Your task to perform on an android device: move an email to a new category in the gmail app Image 0: 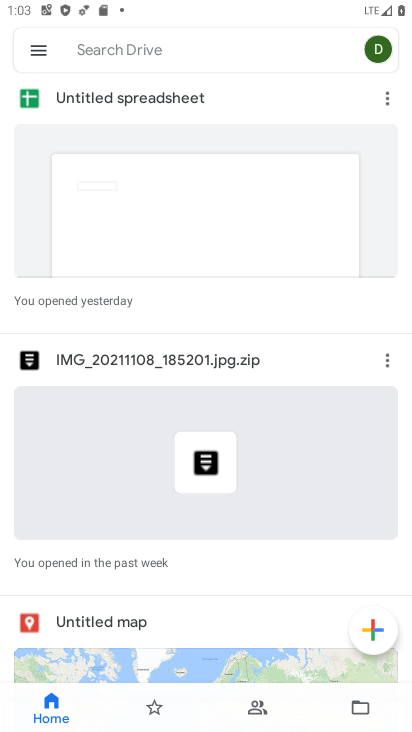
Step 0: press home button
Your task to perform on an android device: move an email to a new category in the gmail app Image 1: 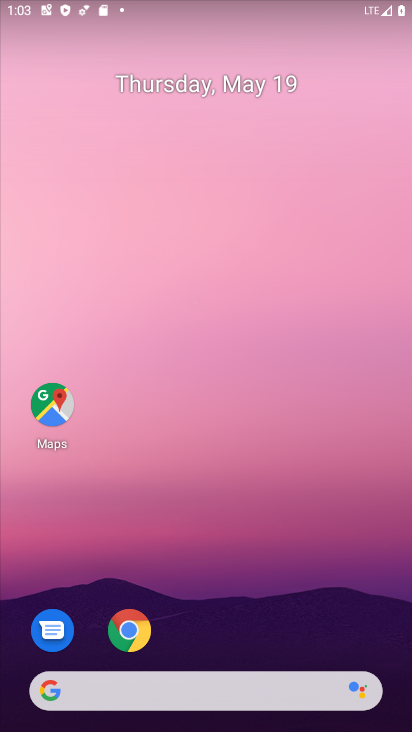
Step 1: drag from (197, 669) to (165, 35)
Your task to perform on an android device: move an email to a new category in the gmail app Image 2: 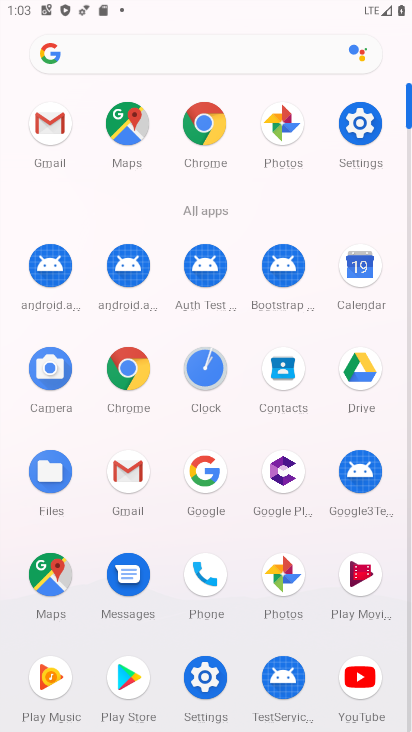
Step 2: click (122, 475)
Your task to perform on an android device: move an email to a new category in the gmail app Image 3: 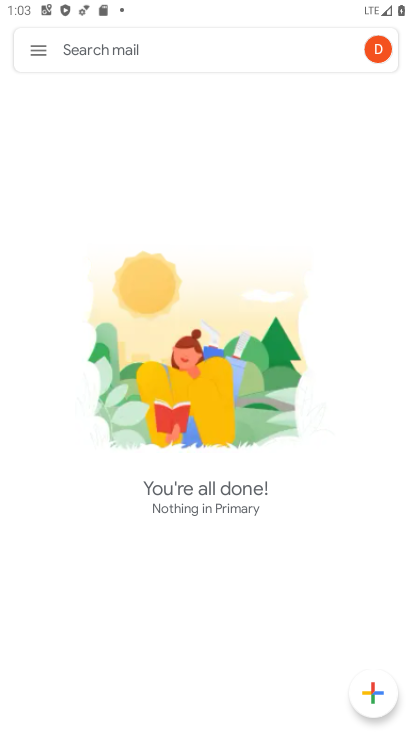
Step 3: task complete